Your task to perform on an android device: What's the weather today? Image 0: 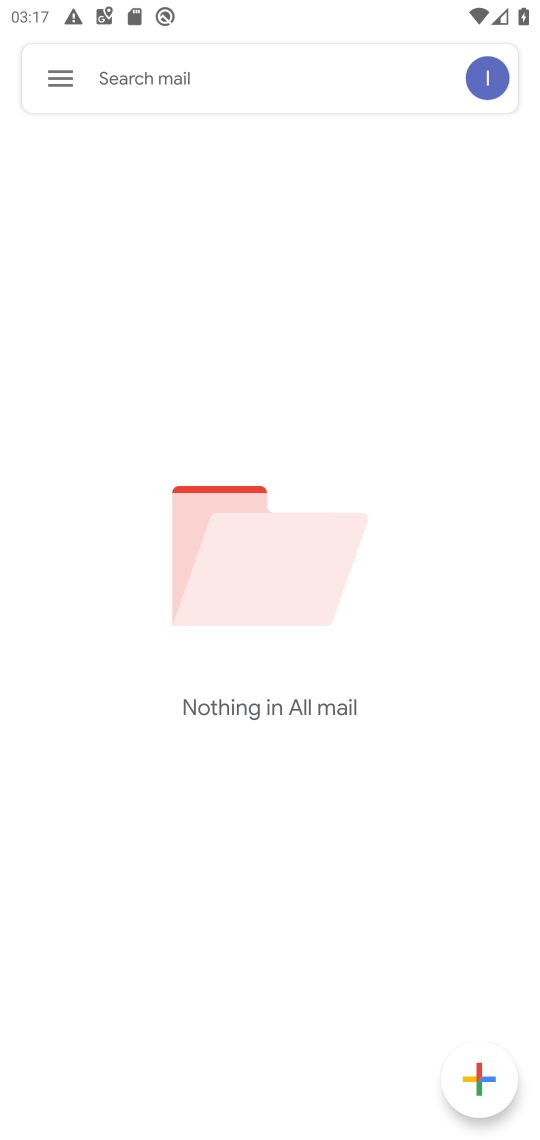
Step 0: press home button
Your task to perform on an android device: What's the weather today? Image 1: 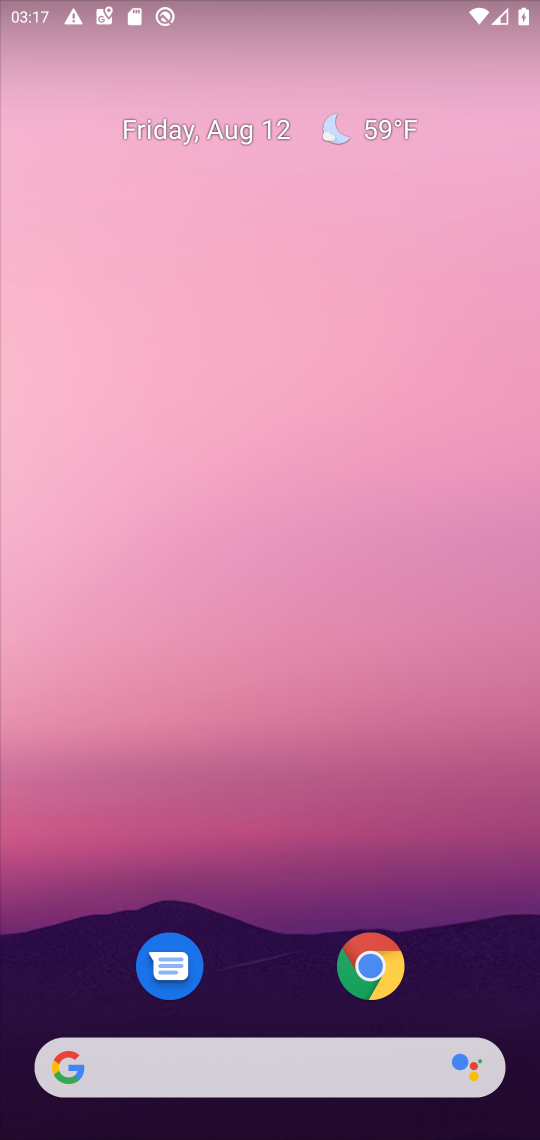
Step 1: click (380, 131)
Your task to perform on an android device: What's the weather today? Image 2: 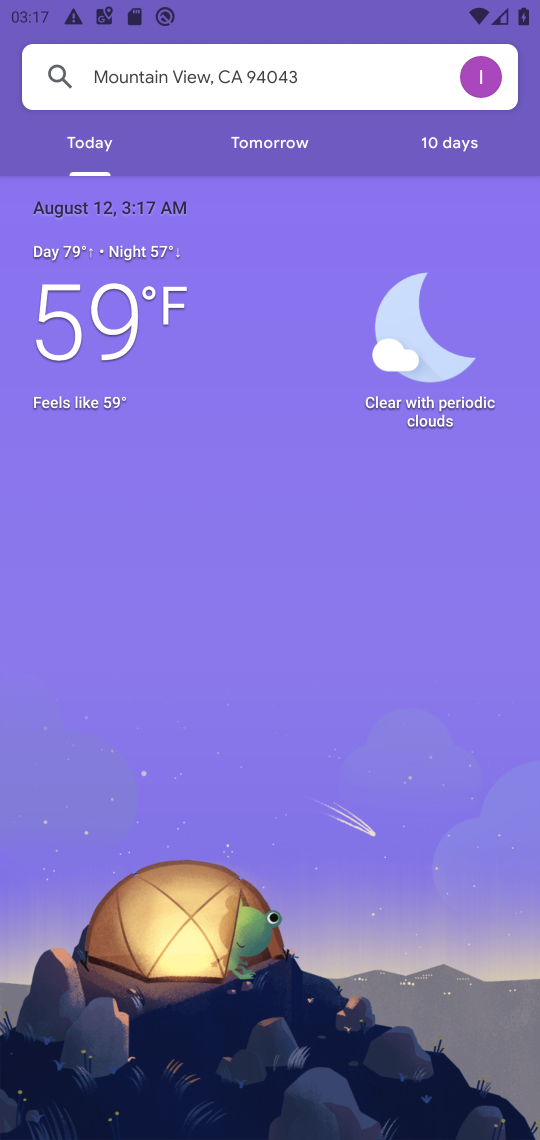
Step 2: task complete